Your task to perform on an android device: Open Wikipedia Image 0: 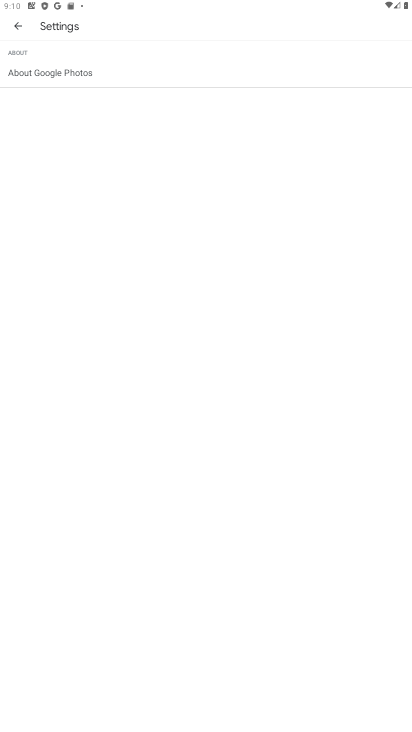
Step 0: press home button
Your task to perform on an android device: Open Wikipedia Image 1: 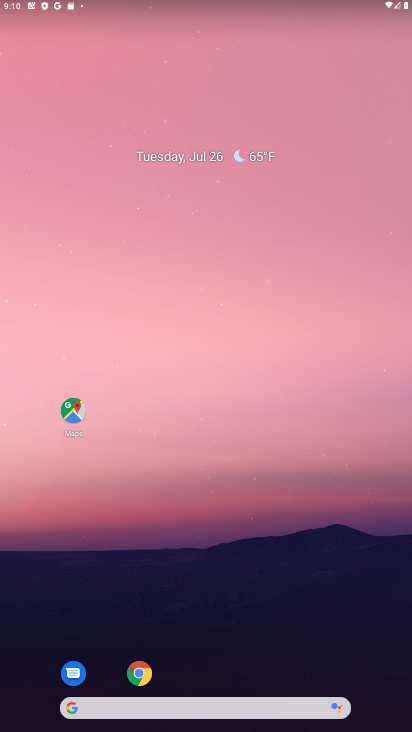
Step 1: click (143, 674)
Your task to perform on an android device: Open Wikipedia Image 2: 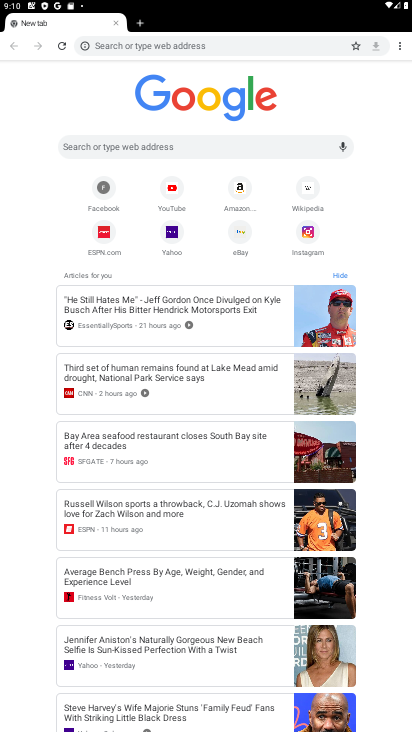
Step 2: click (131, 147)
Your task to perform on an android device: Open Wikipedia Image 3: 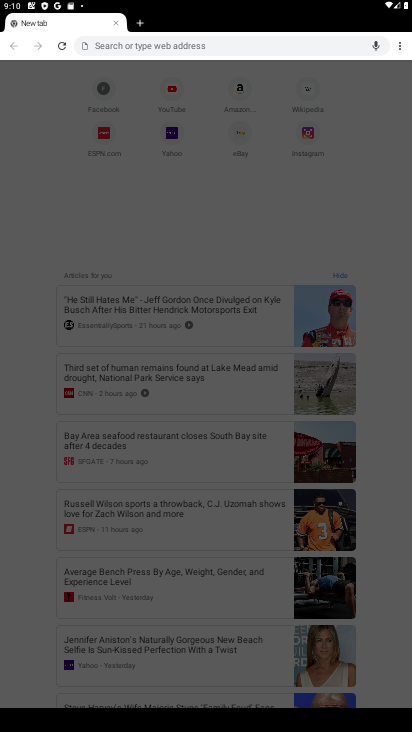
Step 3: type "wikipedia"
Your task to perform on an android device: Open Wikipedia Image 4: 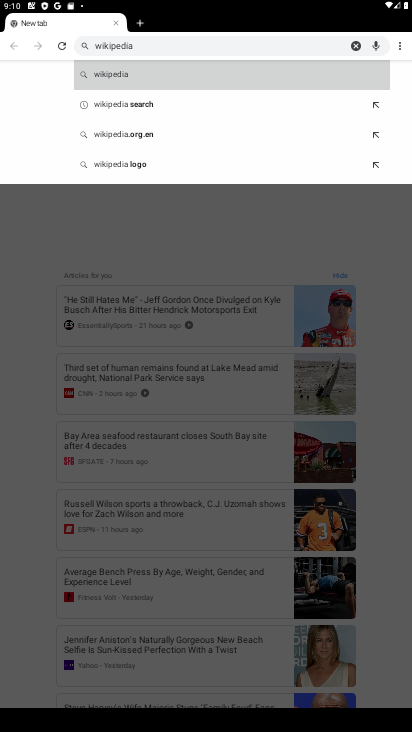
Step 4: click (113, 66)
Your task to perform on an android device: Open Wikipedia Image 5: 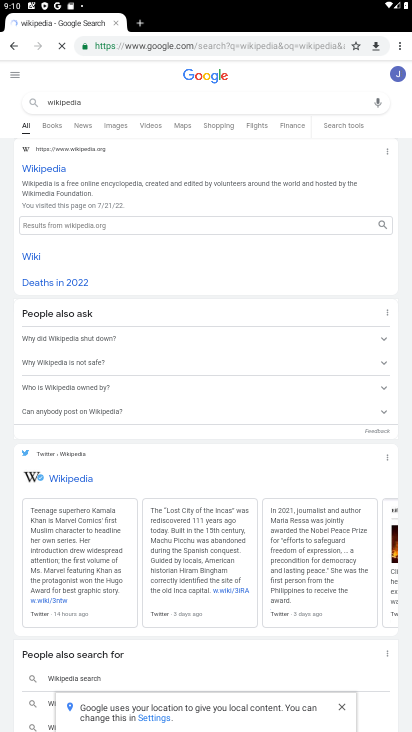
Step 5: click (43, 167)
Your task to perform on an android device: Open Wikipedia Image 6: 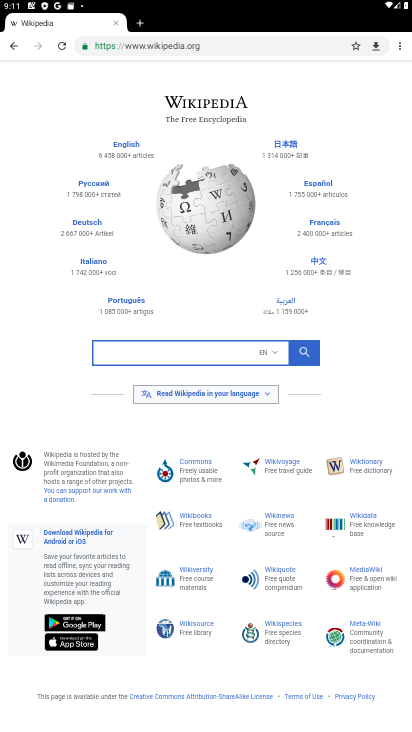
Step 6: task complete